Your task to perform on an android device: toggle javascript in the chrome app Image 0: 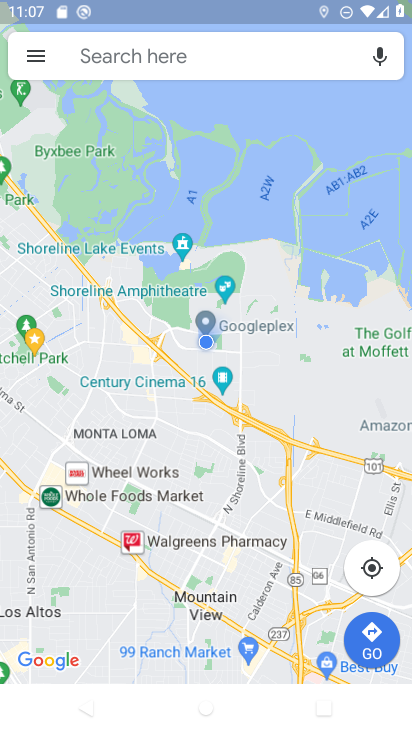
Step 0: press home button
Your task to perform on an android device: toggle javascript in the chrome app Image 1: 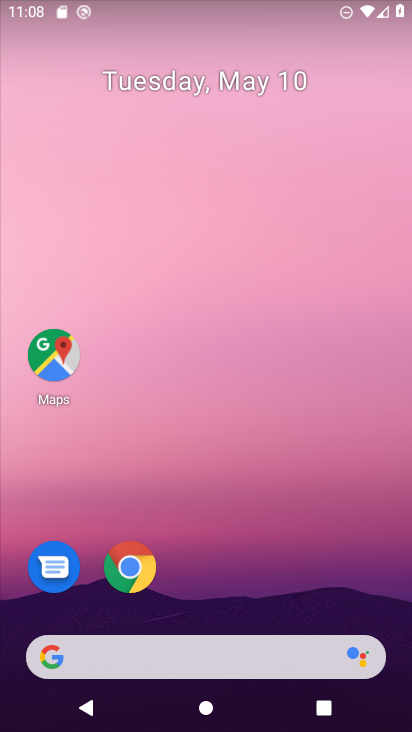
Step 1: click (119, 570)
Your task to perform on an android device: toggle javascript in the chrome app Image 2: 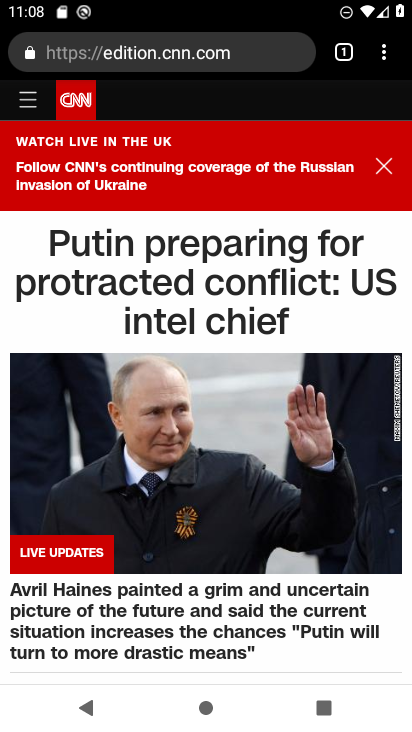
Step 2: drag from (387, 58) to (230, 587)
Your task to perform on an android device: toggle javascript in the chrome app Image 3: 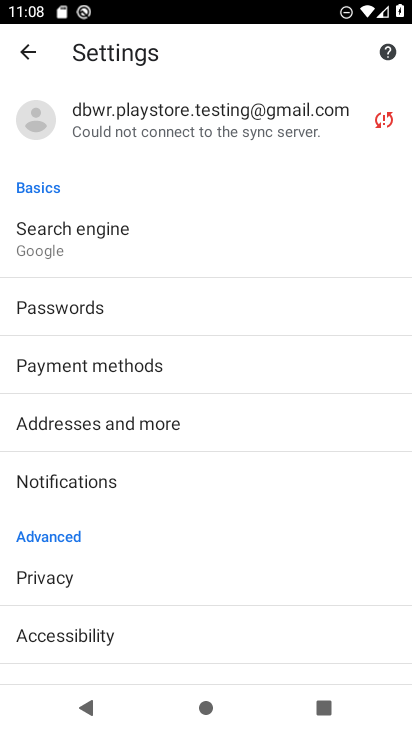
Step 3: drag from (210, 578) to (236, 242)
Your task to perform on an android device: toggle javascript in the chrome app Image 4: 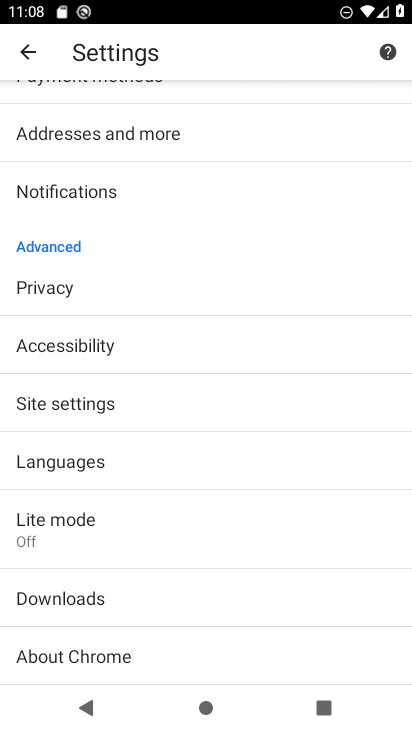
Step 4: click (104, 408)
Your task to perform on an android device: toggle javascript in the chrome app Image 5: 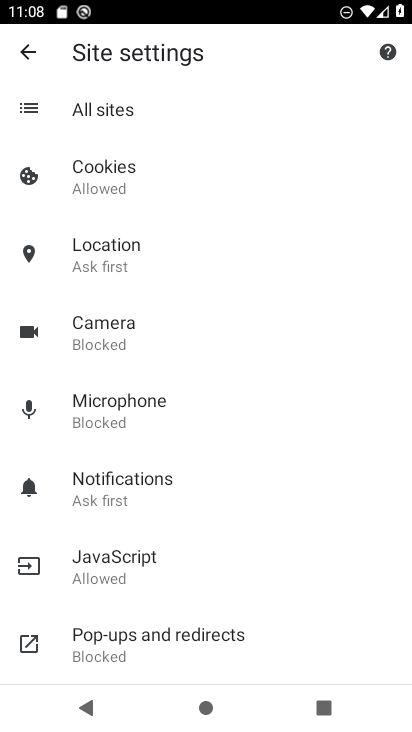
Step 5: click (130, 571)
Your task to perform on an android device: toggle javascript in the chrome app Image 6: 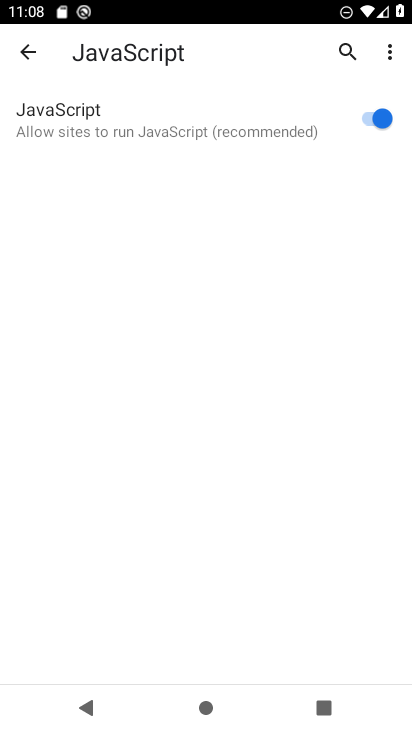
Step 6: click (387, 118)
Your task to perform on an android device: toggle javascript in the chrome app Image 7: 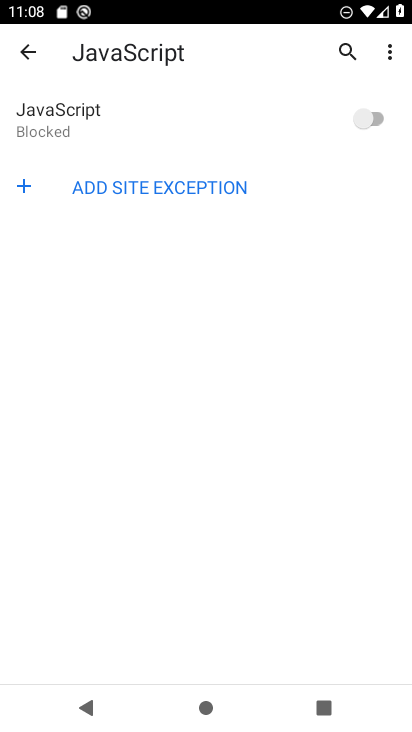
Step 7: task complete